Your task to perform on an android device: turn off sleep mode Image 0: 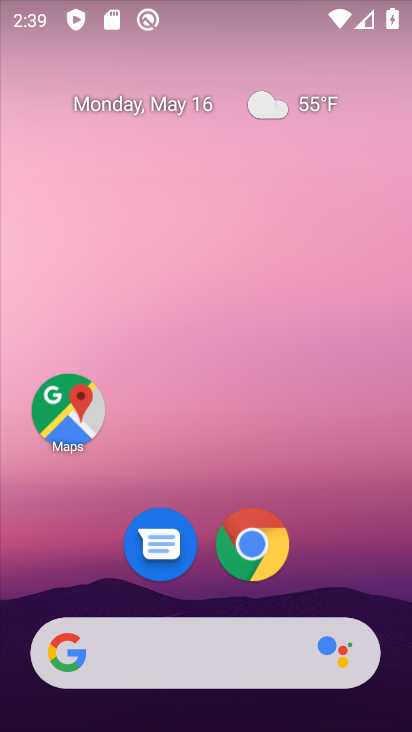
Step 0: drag from (338, 534) to (307, 211)
Your task to perform on an android device: turn off sleep mode Image 1: 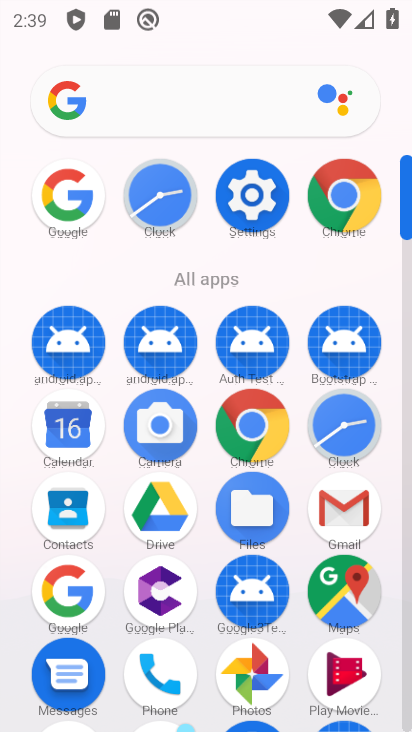
Step 1: click (232, 185)
Your task to perform on an android device: turn off sleep mode Image 2: 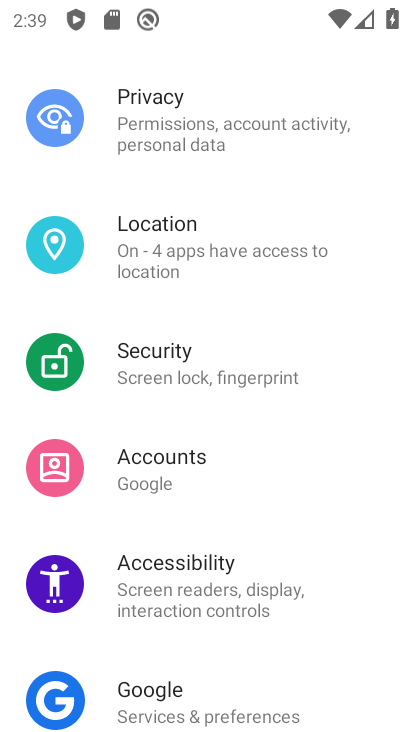
Step 2: drag from (186, 522) to (166, 250)
Your task to perform on an android device: turn off sleep mode Image 3: 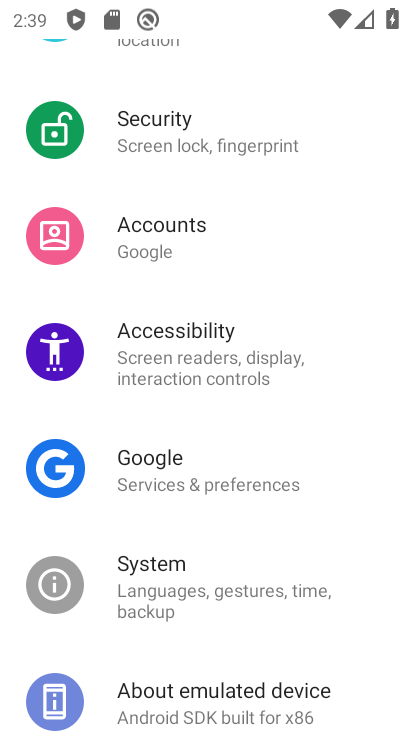
Step 3: drag from (212, 580) to (211, 385)
Your task to perform on an android device: turn off sleep mode Image 4: 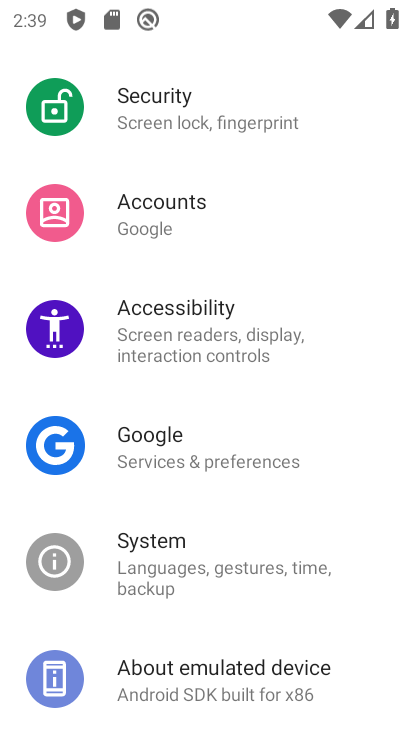
Step 4: drag from (224, 398) to (229, 556)
Your task to perform on an android device: turn off sleep mode Image 5: 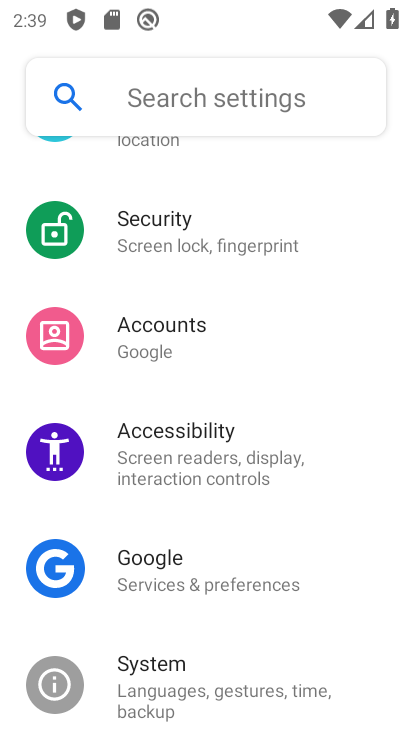
Step 5: drag from (263, 335) to (270, 545)
Your task to perform on an android device: turn off sleep mode Image 6: 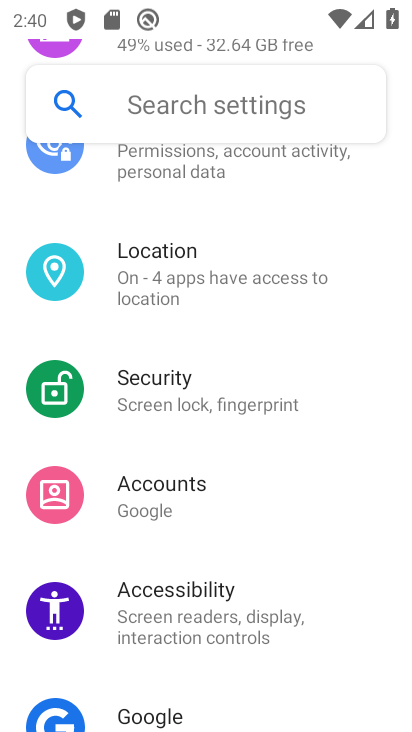
Step 6: drag from (292, 248) to (278, 545)
Your task to perform on an android device: turn off sleep mode Image 7: 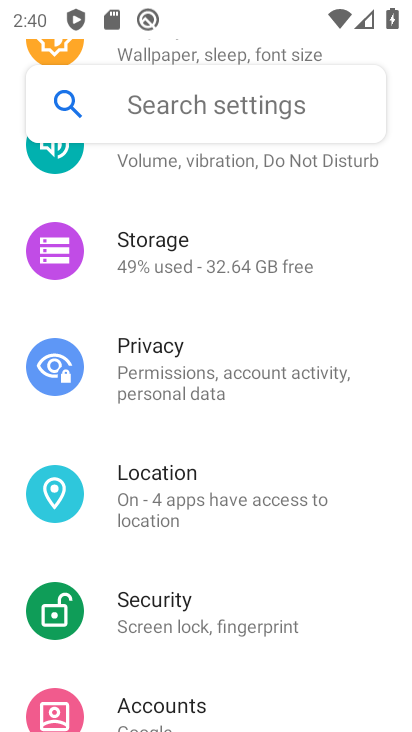
Step 7: drag from (248, 232) to (259, 571)
Your task to perform on an android device: turn off sleep mode Image 8: 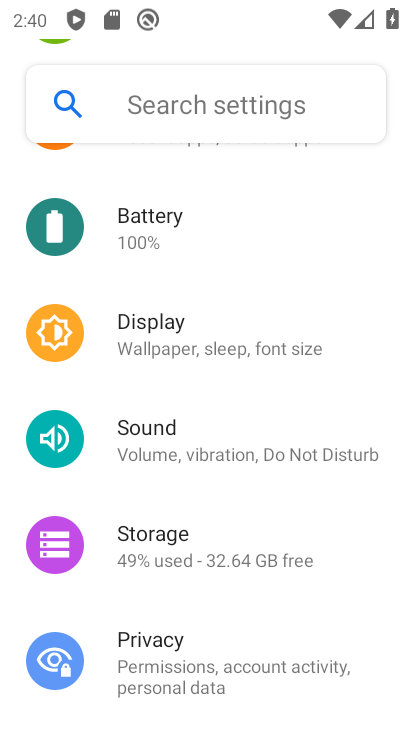
Step 8: click (206, 348)
Your task to perform on an android device: turn off sleep mode Image 9: 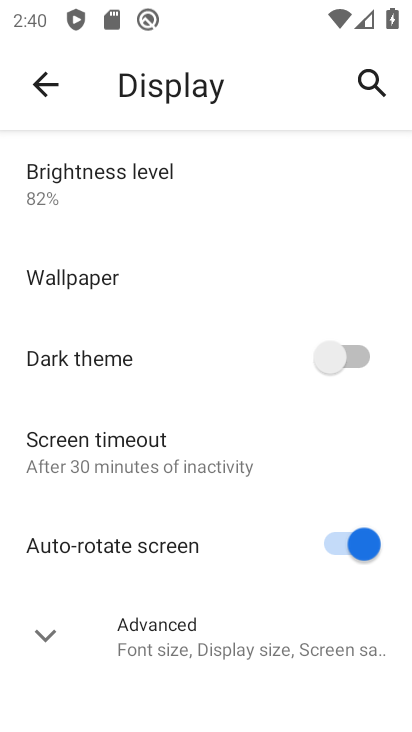
Step 9: drag from (149, 612) to (138, 342)
Your task to perform on an android device: turn off sleep mode Image 10: 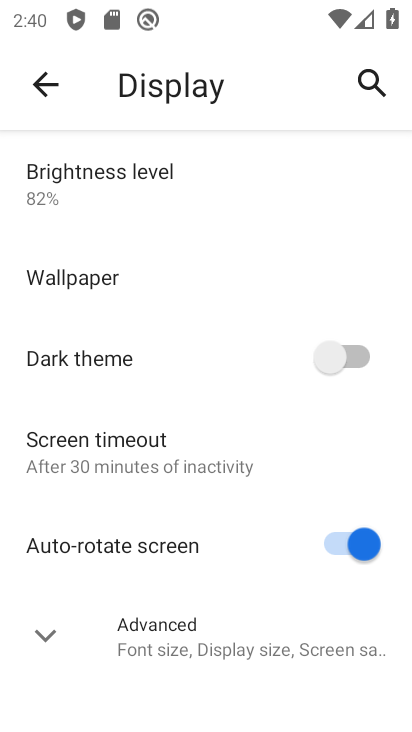
Step 10: click (130, 429)
Your task to perform on an android device: turn off sleep mode Image 11: 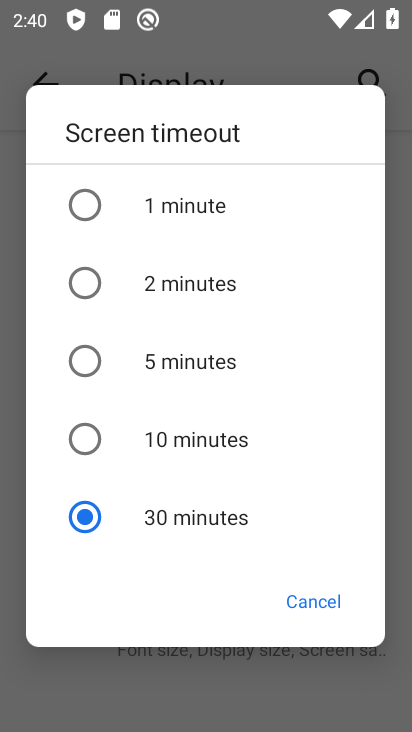
Step 11: task complete